Your task to perform on an android device: Is it going to rain tomorrow? Image 0: 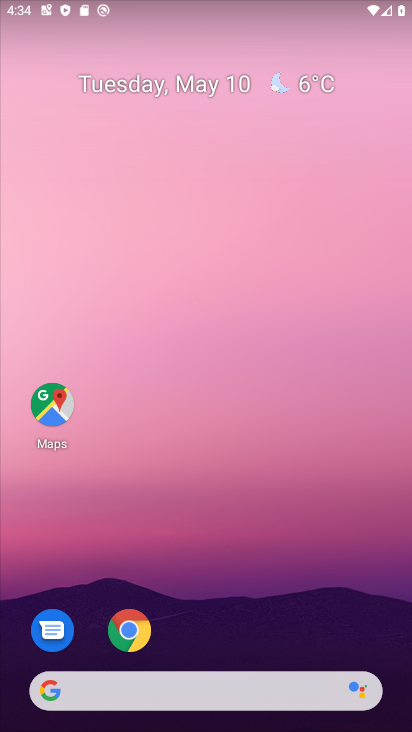
Step 0: click (314, 84)
Your task to perform on an android device: Is it going to rain tomorrow? Image 1: 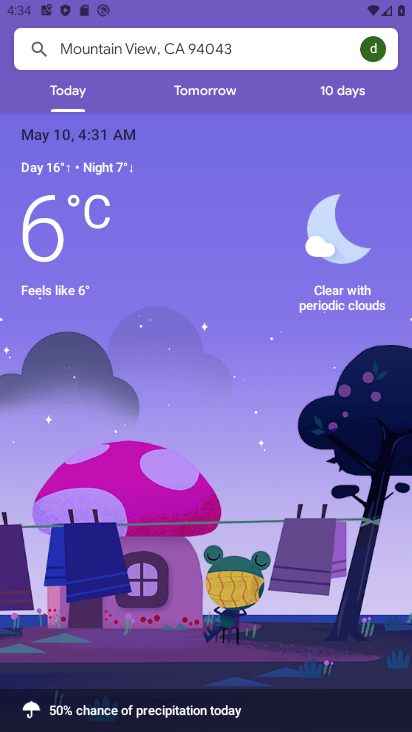
Step 1: click (225, 99)
Your task to perform on an android device: Is it going to rain tomorrow? Image 2: 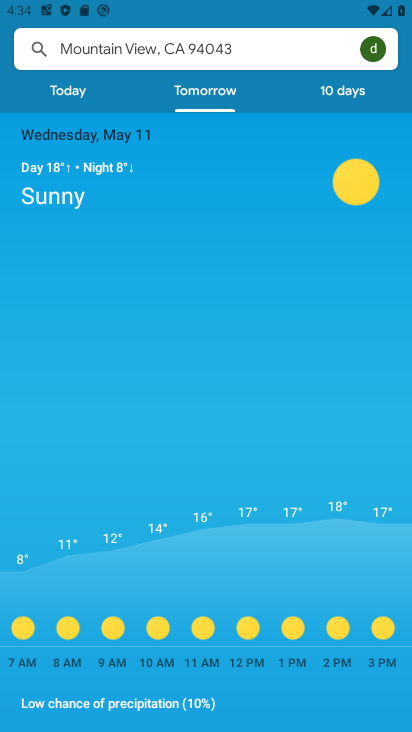
Step 2: task complete